Your task to perform on an android device: Open CNN.com Image 0: 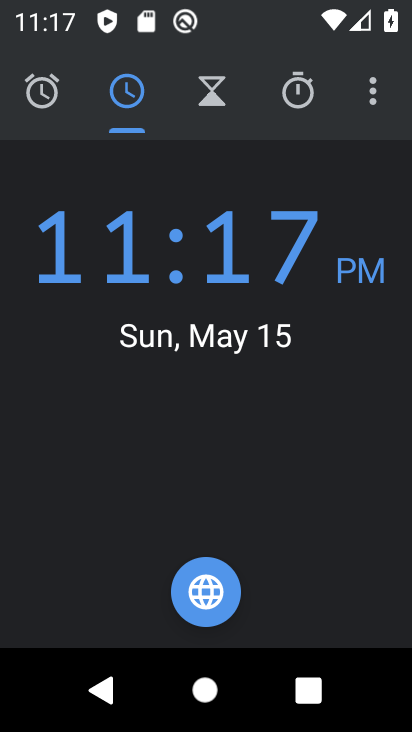
Step 0: press home button
Your task to perform on an android device: Open CNN.com Image 1: 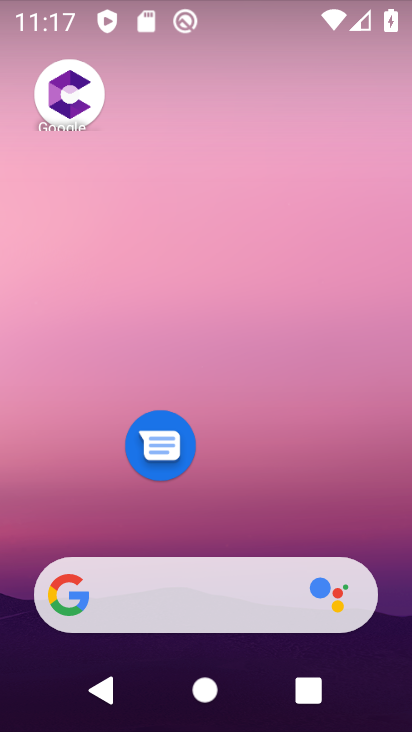
Step 1: drag from (191, 586) to (330, 147)
Your task to perform on an android device: Open CNN.com Image 2: 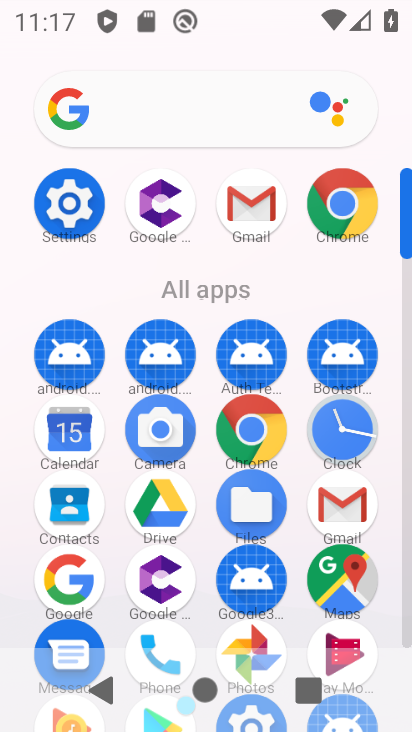
Step 2: click (335, 222)
Your task to perform on an android device: Open CNN.com Image 3: 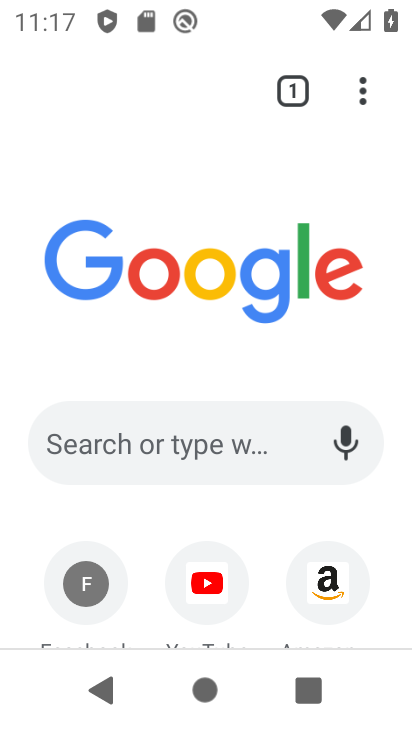
Step 3: drag from (134, 521) to (249, 235)
Your task to perform on an android device: Open CNN.com Image 4: 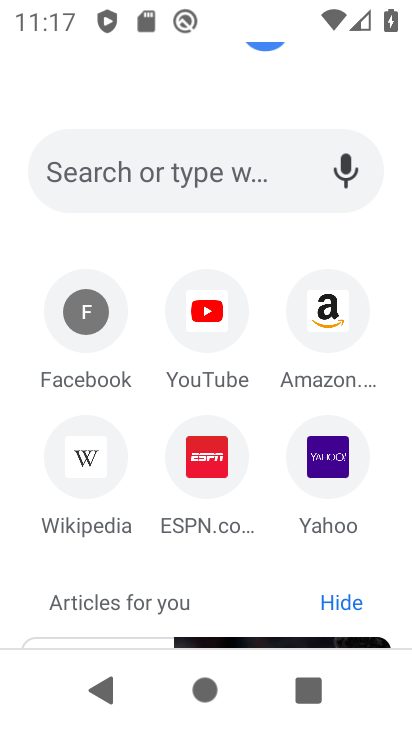
Step 4: click (161, 181)
Your task to perform on an android device: Open CNN.com Image 5: 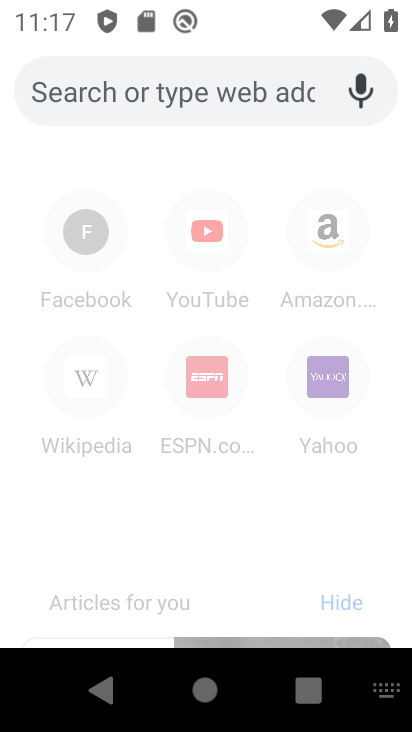
Step 5: type "cnn.com"
Your task to perform on an android device: Open CNN.com Image 6: 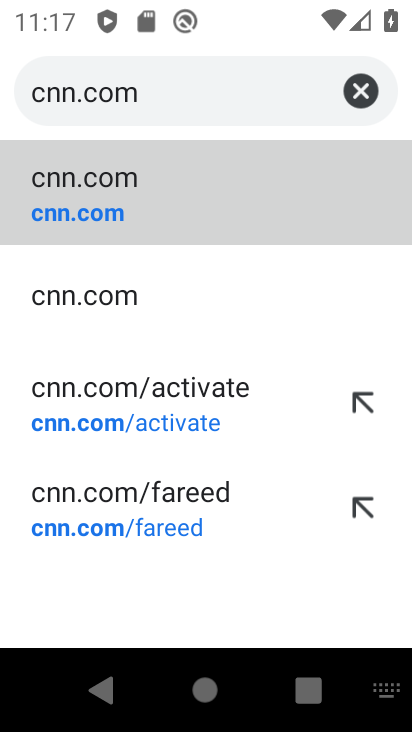
Step 6: click (104, 188)
Your task to perform on an android device: Open CNN.com Image 7: 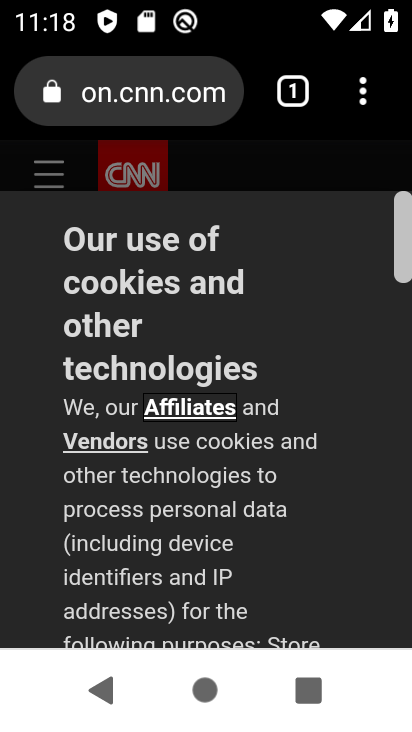
Step 7: task complete